Your task to perform on an android device: Clear the cart on bestbuy. Search for sony triple a on bestbuy, select the first entry, add it to the cart, then select checkout. Image 0: 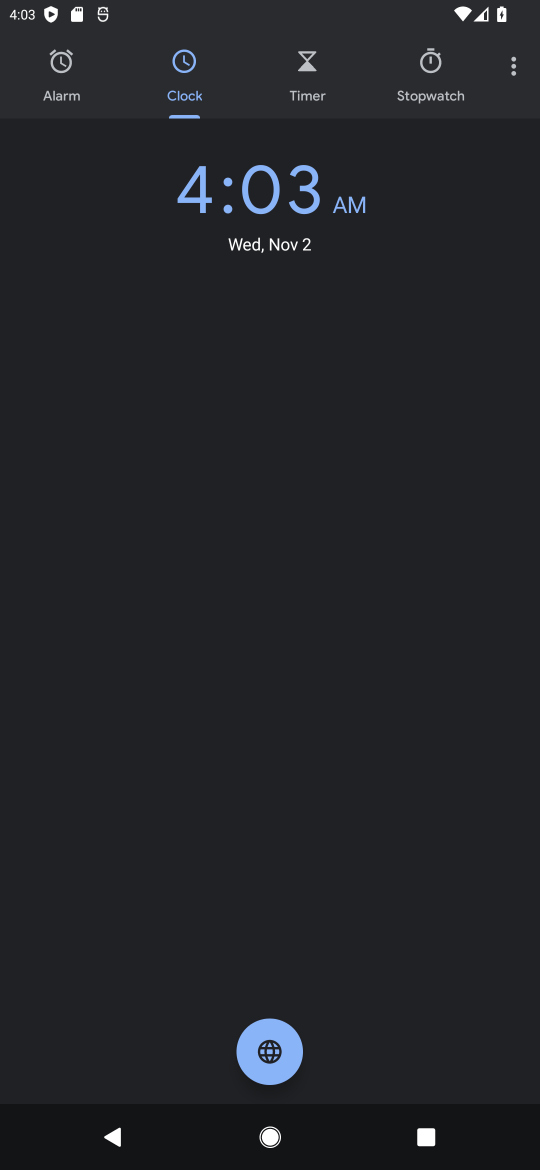
Step 0: press home button
Your task to perform on an android device: Clear the cart on bestbuy. Search for sony triple a on bestbuy, select the first entry, add it to the cart, then select checkout. Image 1: 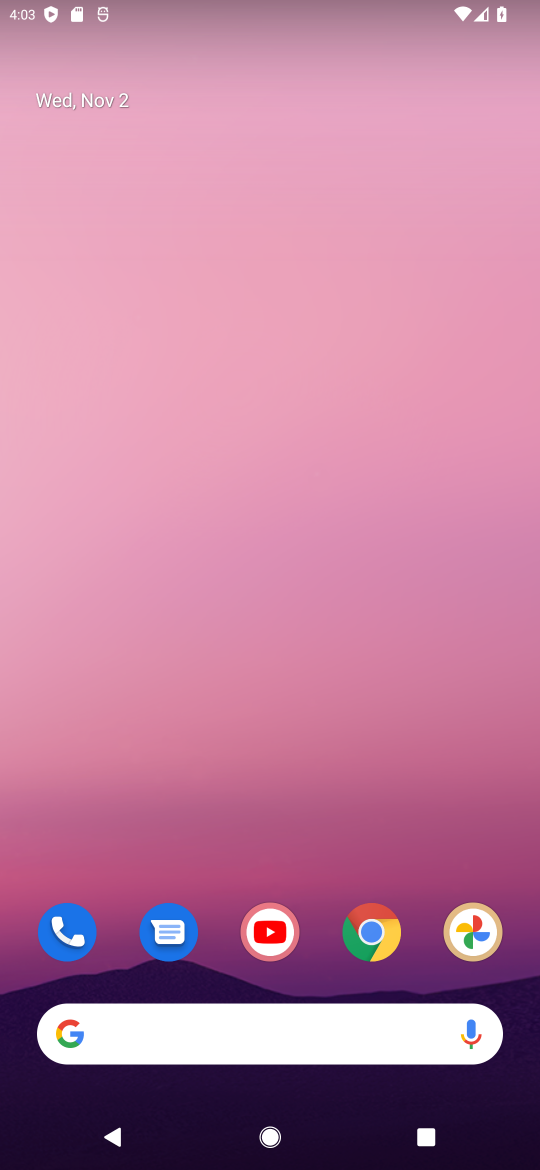
Step 1: click (369, 939)
Your task to perform on an android device: Clear the cart on bestbuy. Search for sony triple a on bestbuy, select the first entry, add it to the cart, then select checkout. Image 2: 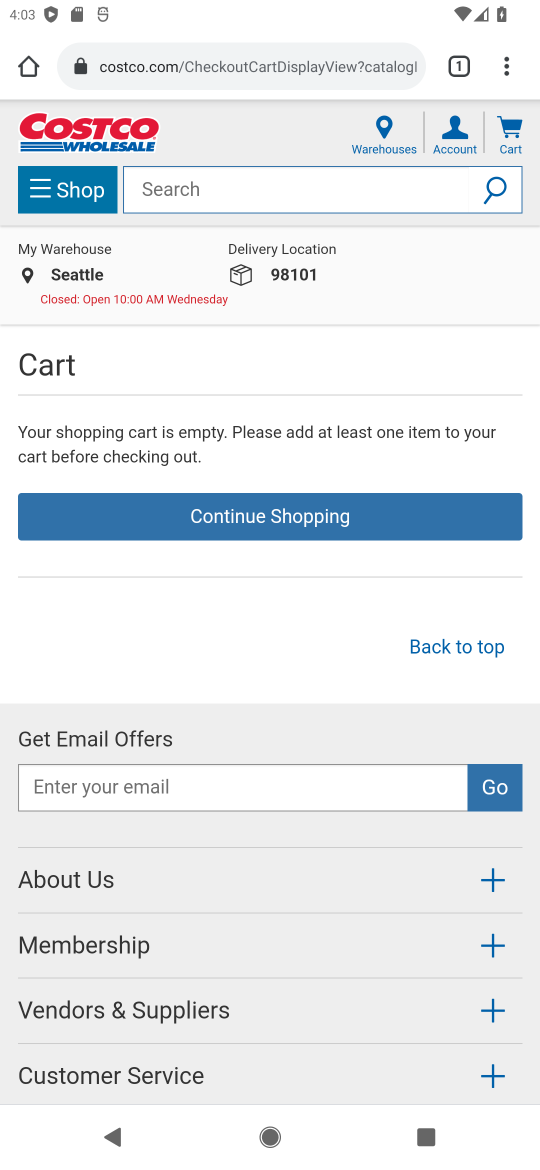
Step 2: click (290, 71)
Your task to perform on an android device: Clear the cart on bestbuy. Search for sony triple a on bestbuy, select the first entry, add it to the cart, then select checkout. Image 3: 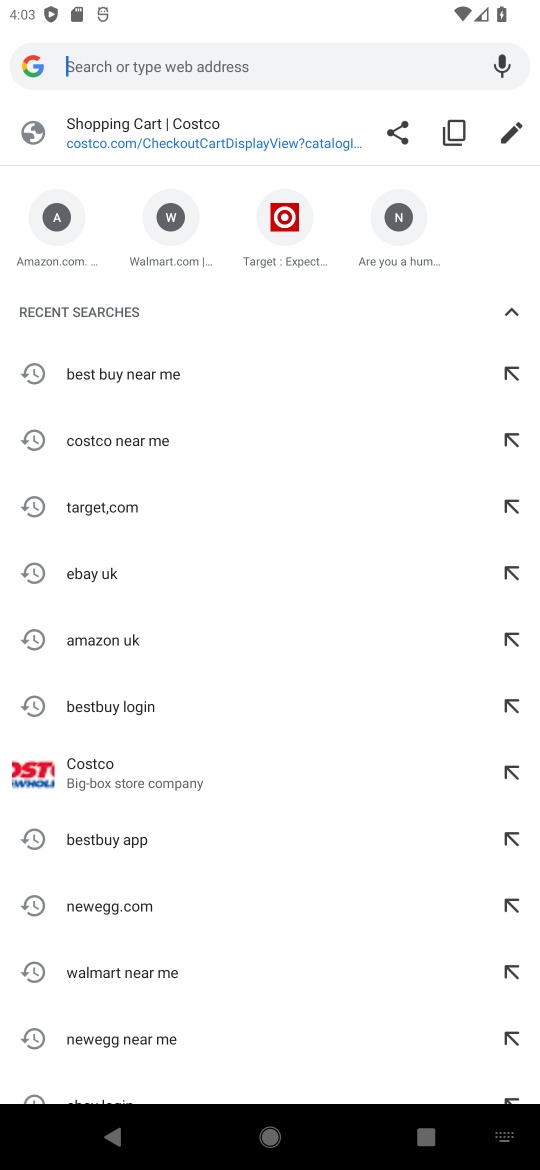
Step 3: type "bestbuy"
Your task to perform on an android device: Clear the cart on bestbuy. Search for sony triple a on bestbuy, select the first entry, add it to the cart, then select checkout. Image 4: 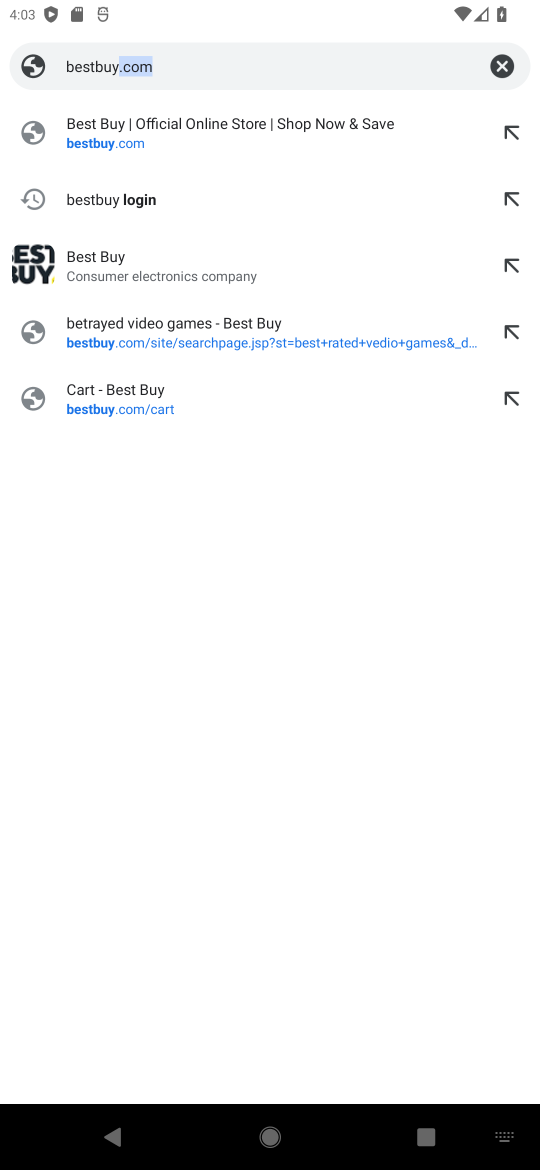
Step 4: click (285, 139)
Your task to perform on an android device: Clear the cart on bestbuy. Search for sony triple a on bestbuy, select the first entry, add it to the cart, then select checkout. Image 5: 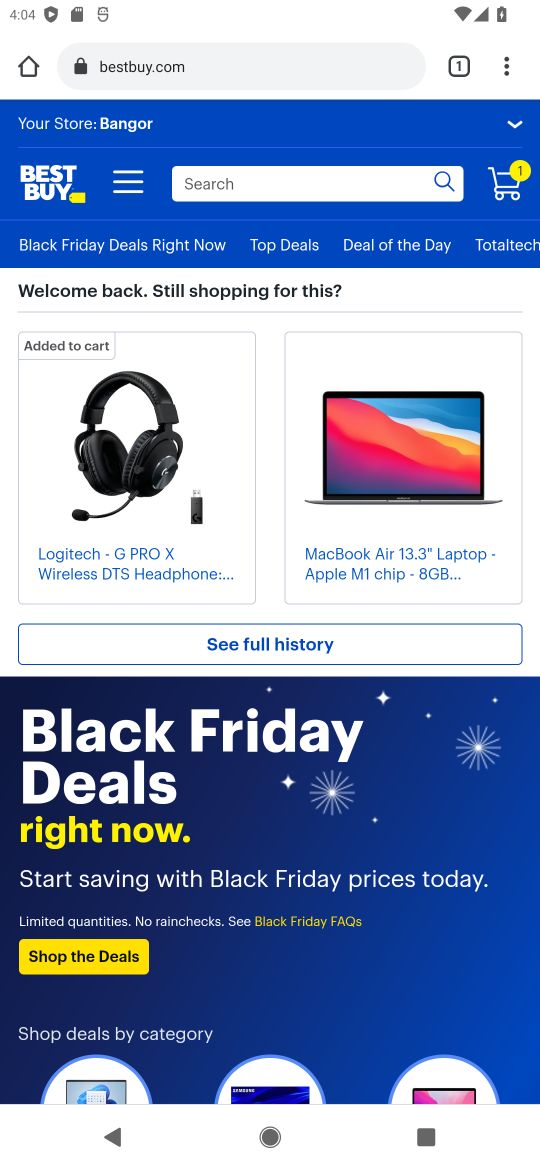
Step 5: click (505, 191)
Your task to perform on an android device: Clear the cart on bestbuy. Search for sony triple a on bestbuy, select the first entry, add it to the cart, then select checkout. Image 6: 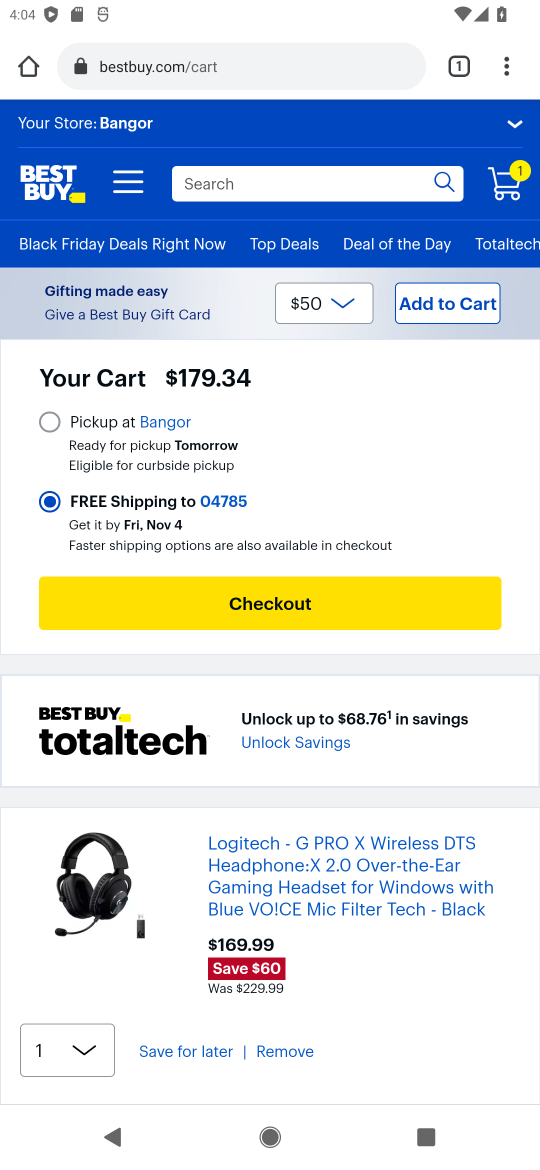
Step 6: click (275, 1054)
Your task to perform on an android device: Clear the cart on bestbuy. Search for sony triple a on bestbuy, select the first entry, add it to the cart, then select checkout. Image 7: 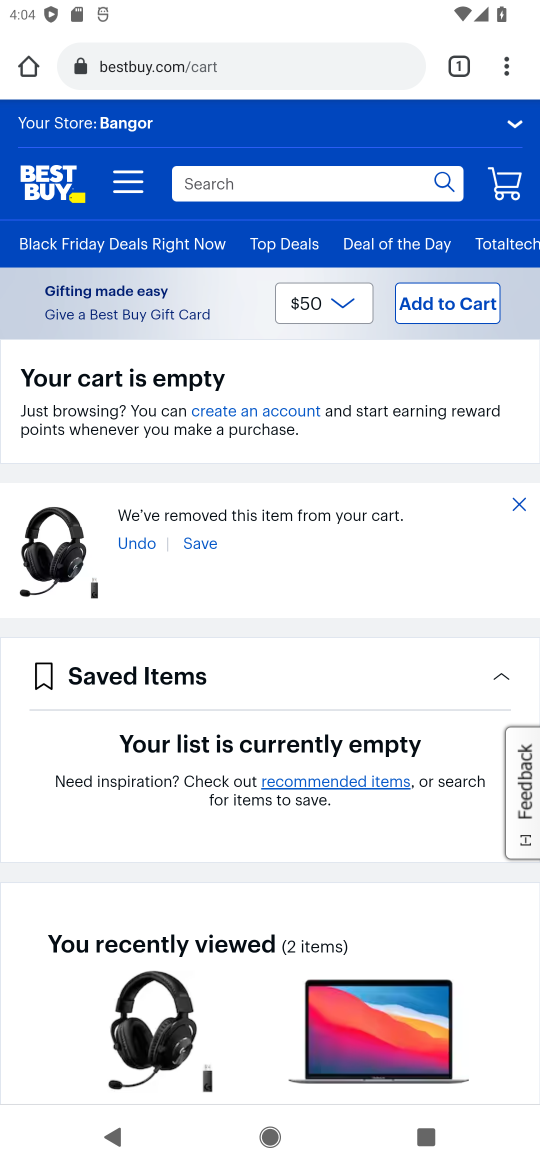
Step 7: click (368, 196)
Your task to perform on an android device: Clear the cart on bestbuy. Search for sony triple a on bestbuy, select the first entry, add it to the cart, then select checkout. Image 8: 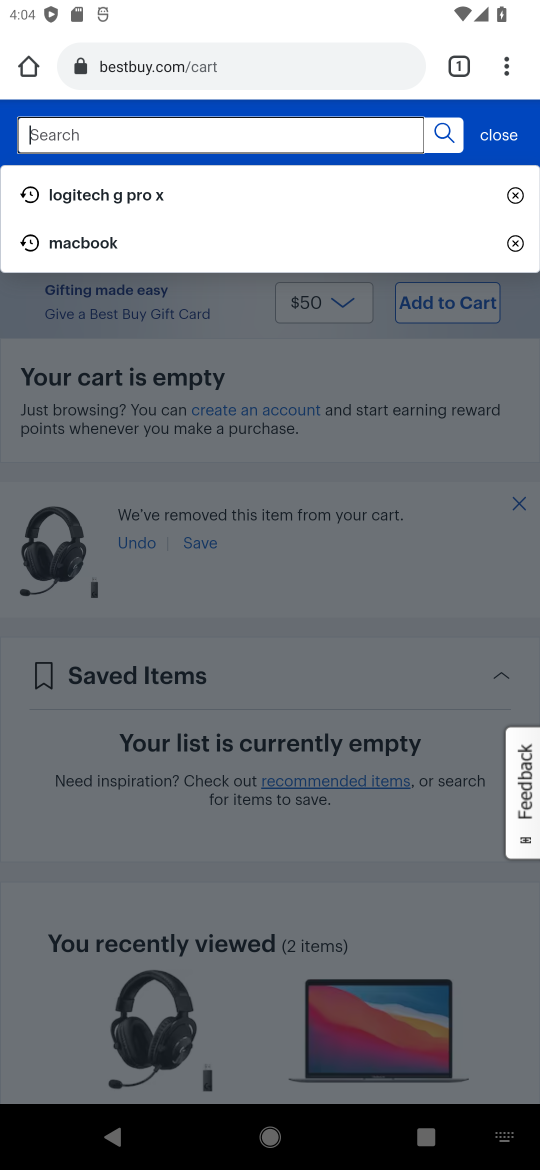
Step 8: type "sony triple a"
Your task to perform on an android device: Clear the cart on bestbuy. Search for sony triple a on bestbuy, select the first entry, add it to the cart, then select checkout. Image 9: 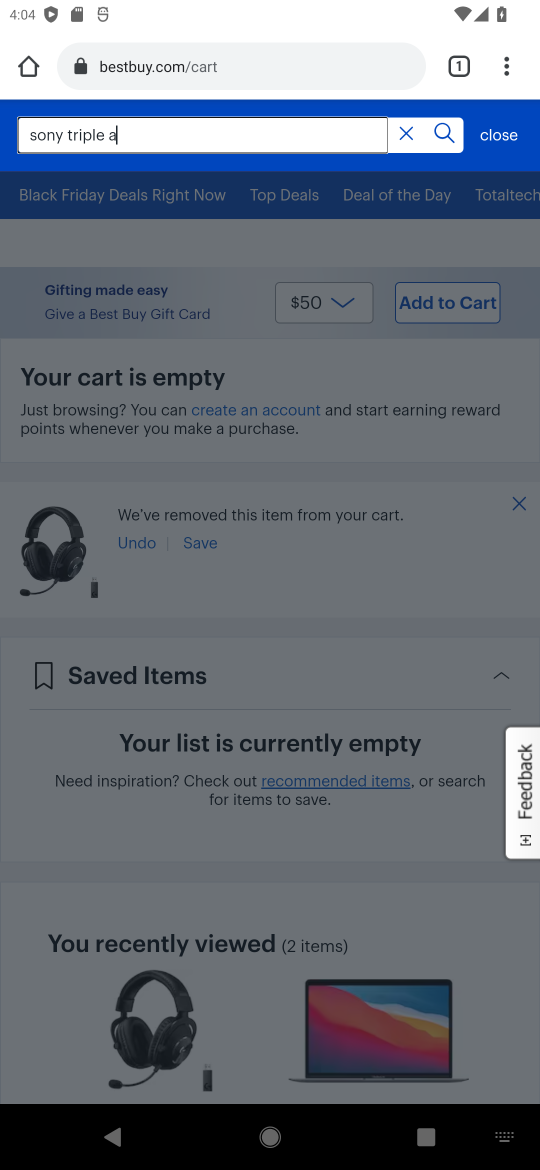
Step 9: press enter
Your task to perform on an android device: Clear the cart on bestbuy. Search for sony triple a on bestbuy, select the first entry, add it to the cart, then select checkout. Image 10: 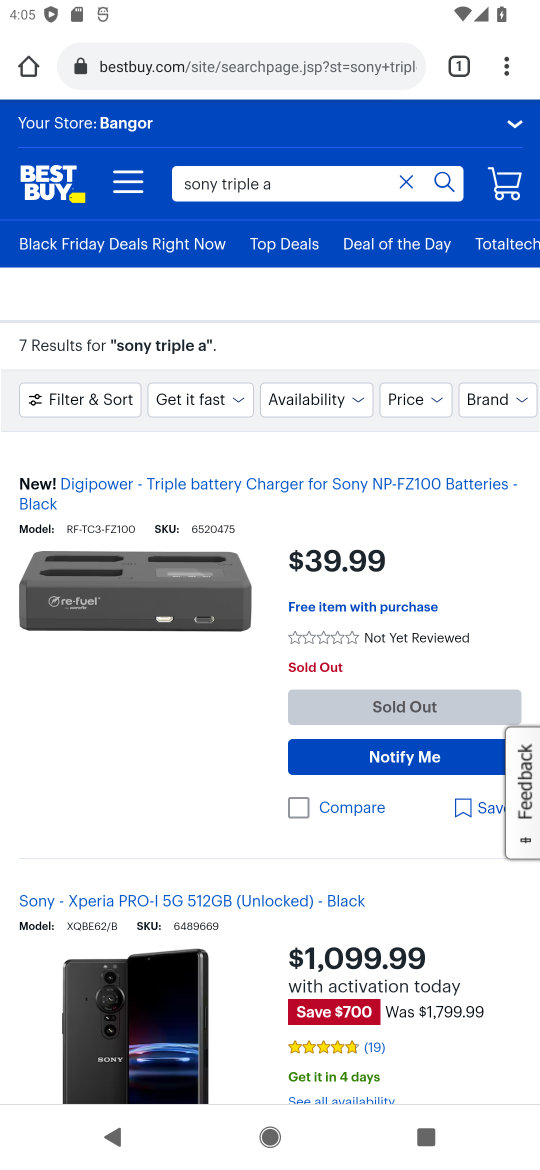
Step 10: drag from (389, 949) to (398, 579)
Your task to perform on an android device: Clear the cart on bestbuy. Search for sony triple a on bestbuy, select the first entry, add it to the cart, then select checkout. Image 11: 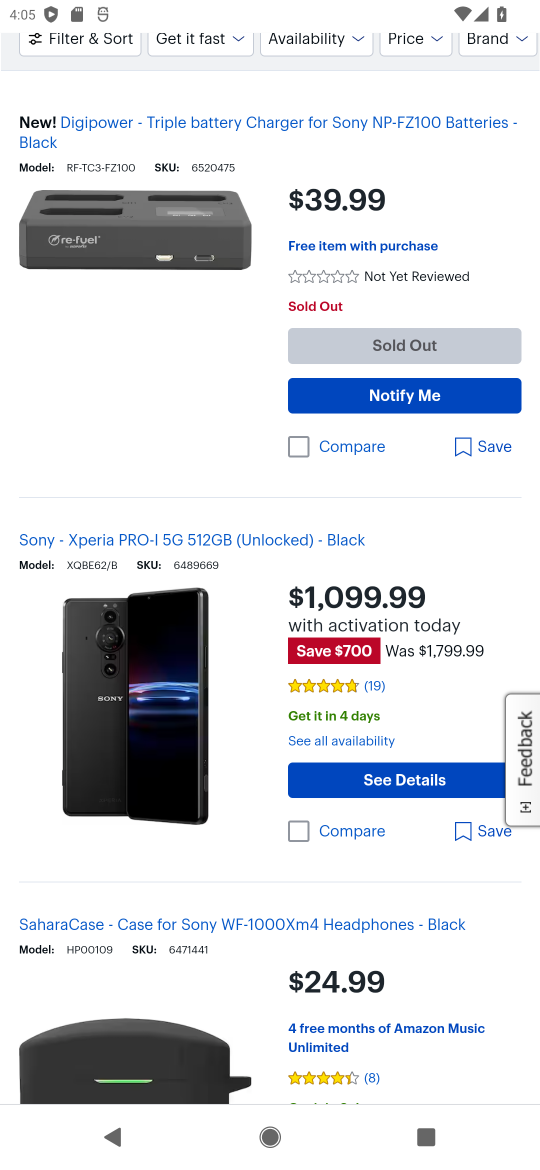
Step 11: drag from (199, 612) to (152, 393)
Your task to perform on an android device: Clear the cart on bestbuy. Search for sony triple a on bestbuy, select the first entry, add it to the cart, then select checkout. Image 12: 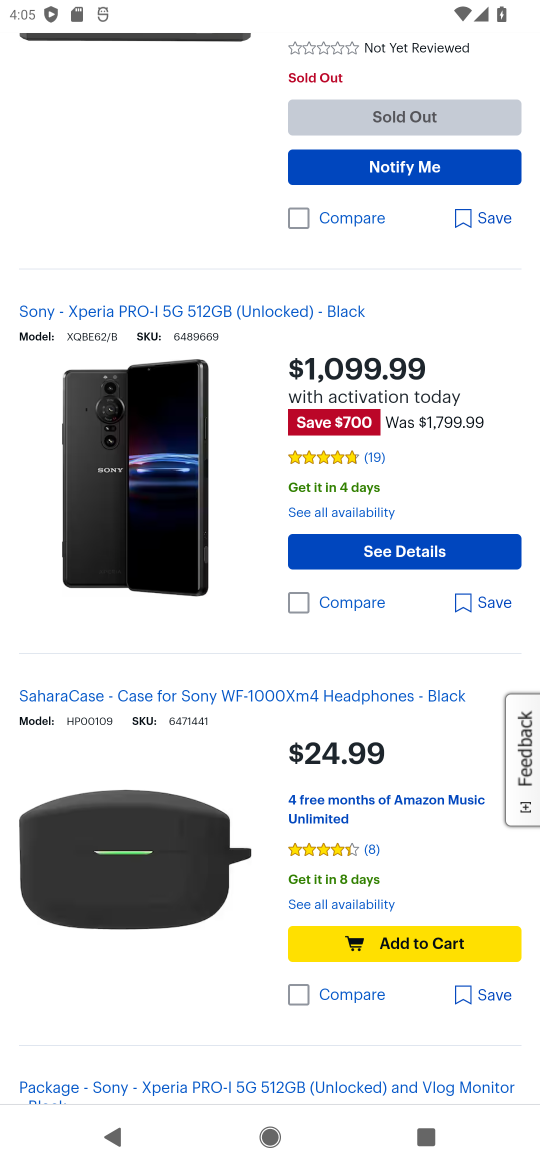
Step 12: drag from (195, 983) to (235, 510)
Your task to perform on an android device: Clear the cart on bestbuy. Search for sony triple a on bestbuy, select the first entry, add it to the cart, then select checkout. Image 13: 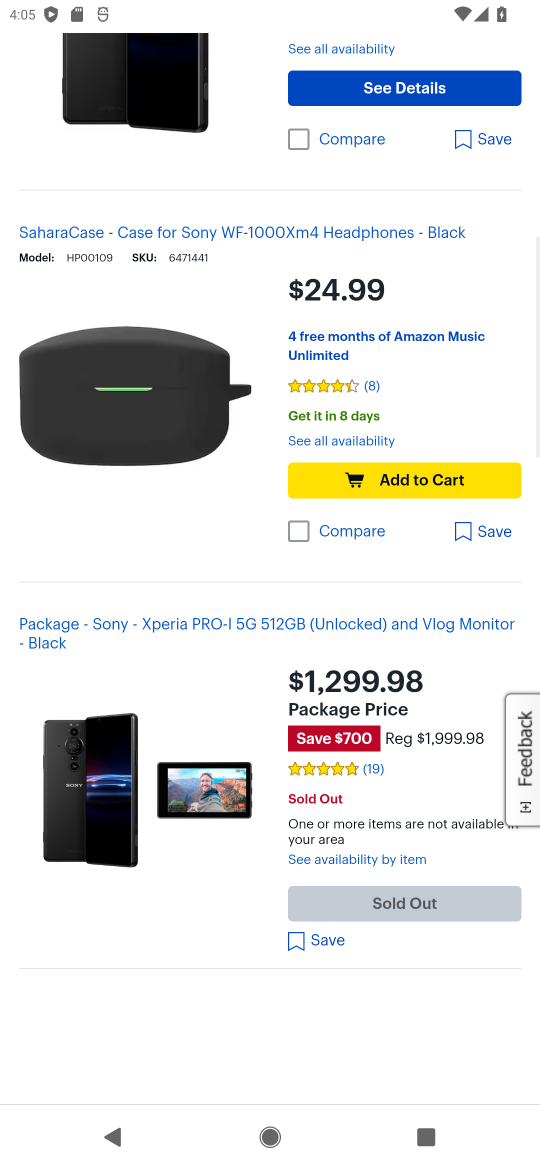
Step 13: drag from (235, 989) to (232, 488)
Your task to perform on an android device: Clear the cart on bestbuy. Search for sony triple a on bestbuy, select the first entry, add it to the cart, then select checkout. Image 14: 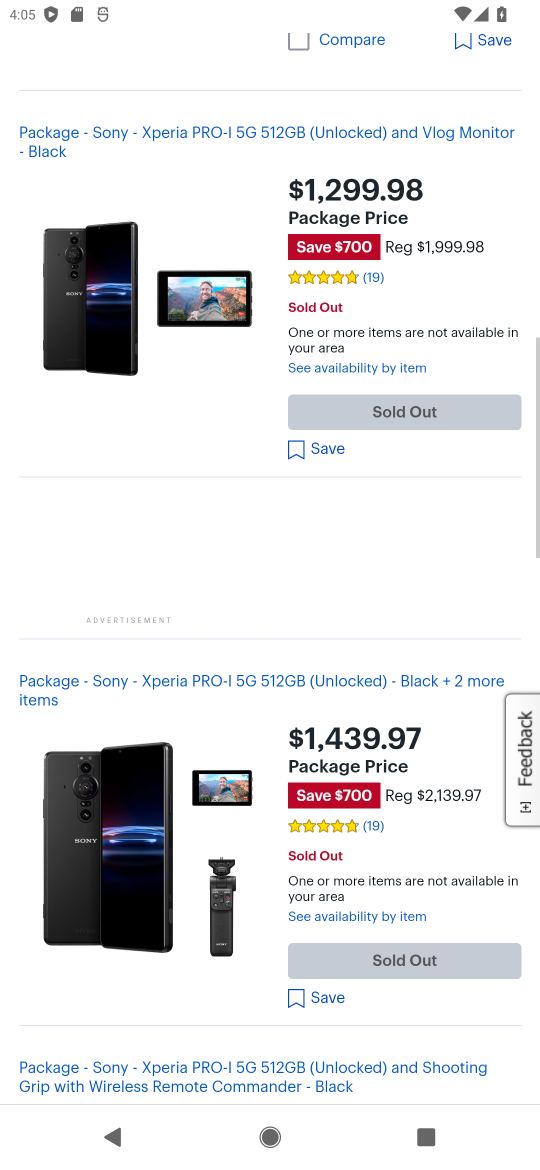
Step 14: drag from (263, 1035) to (215, 684)
Your task to perform on an android device: Clear the cart on bestbuy. Search for sony triple a on bestbuy, select the first entry, add it to the cart, then select checkout. Image 15: 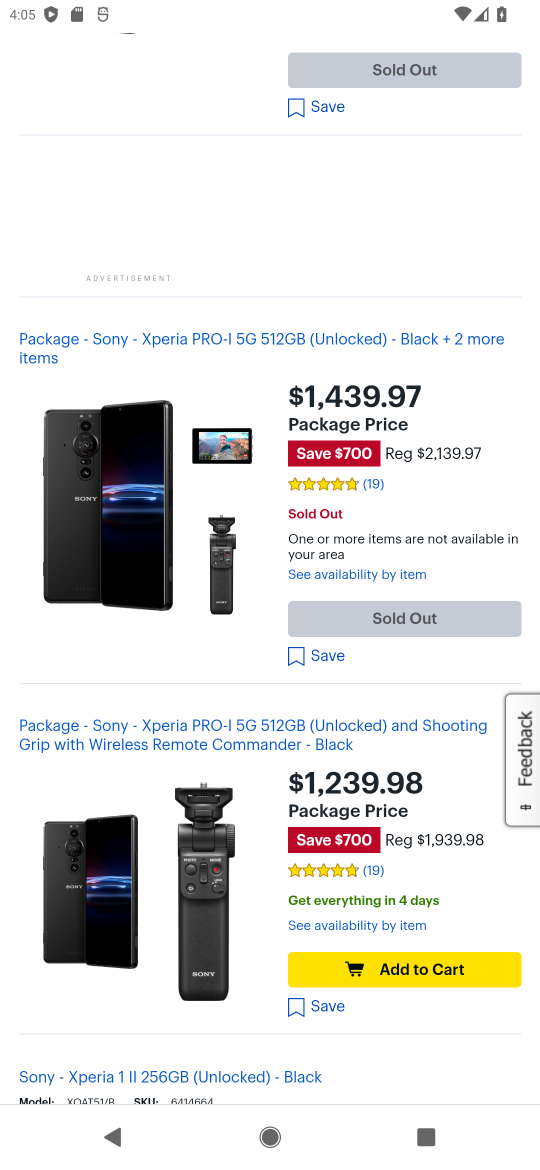
Step 15: drag from (314, 911) to (295, 572)
Your task to perform on an android device: Clear the cart on bestbuy. Search for sony triple a on bestbuy, select the first entry, add it to the cart, then select checkout. Image 16: 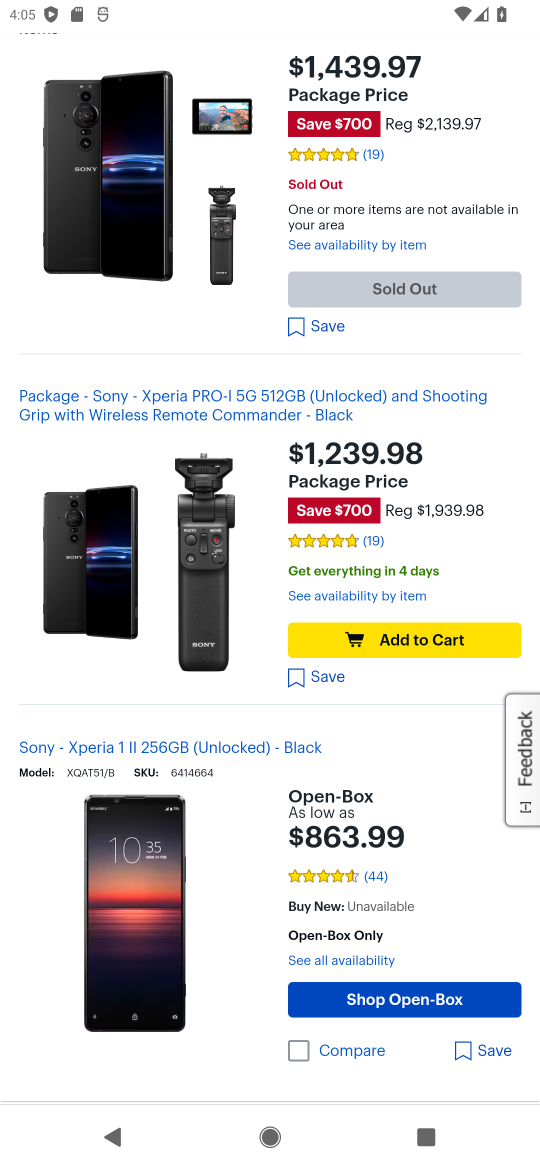
Step 16: drag from (422, 820) to (422, 352)
Your task to perform on an android device: Clear the cart on bestbuy. Search for sony triple a on bestbuy, select the first entry, add it to the cart, then select checkout. Image 17: 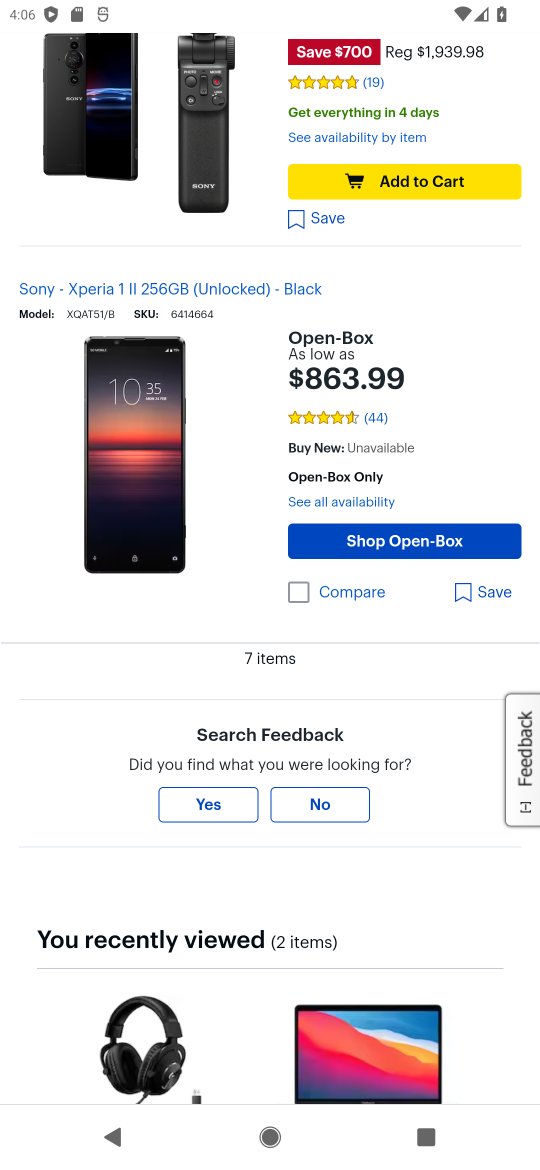
Step 17: click (308, 812)
Your task to perform on an android device: Clear the cart on bestbuy. Search for sony triple a on bestbuy, select the first entry, add it to the cart, then select checkout. Image 18: 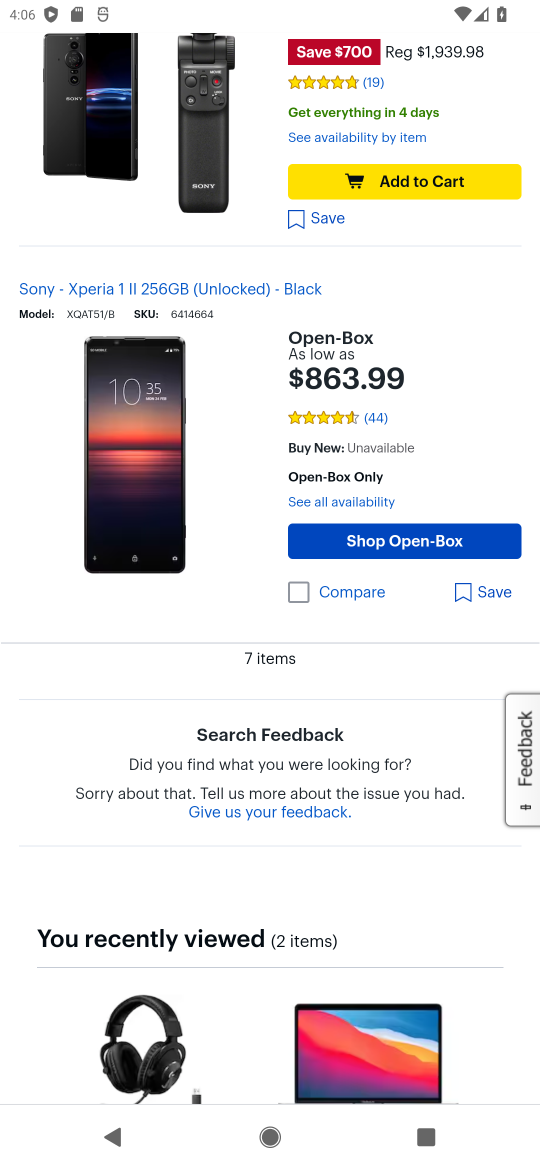
Step 18: task complete